Your task to perform on an android device: Go to Google Image 0: 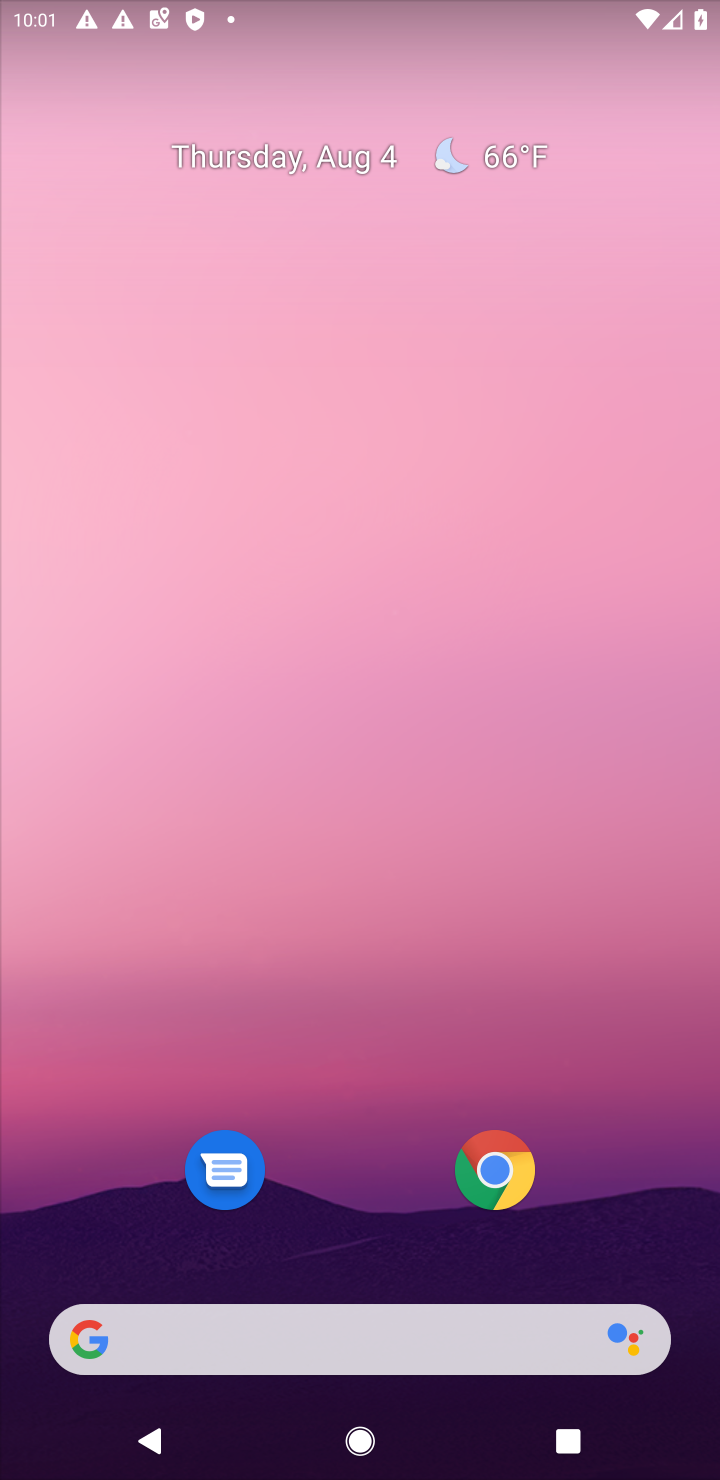
Step 0: drag from (350, 994) to (258, 10)
Your task to perform on an android device: Go to Google Image 1: 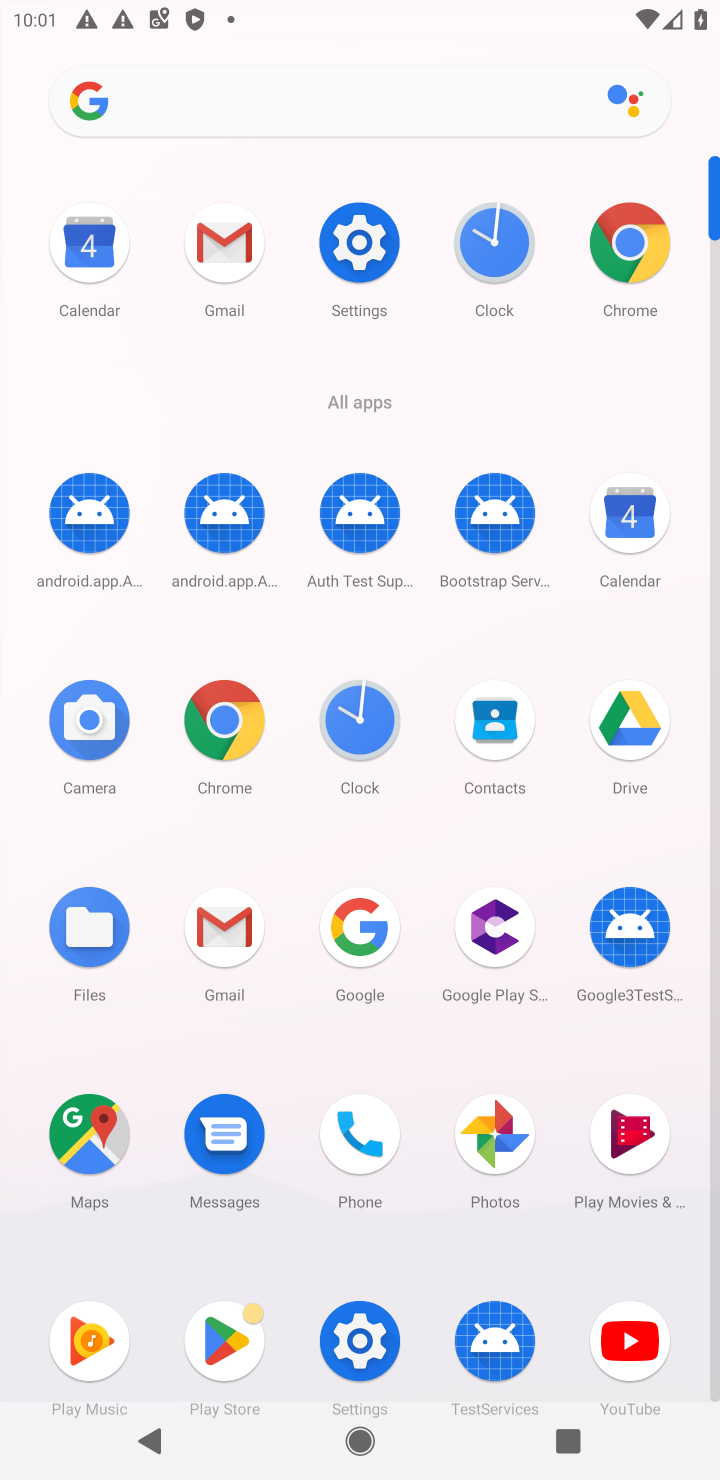
Step 1: click (345, 945)
Your task to perform on an android device: Go to Google Image 2: 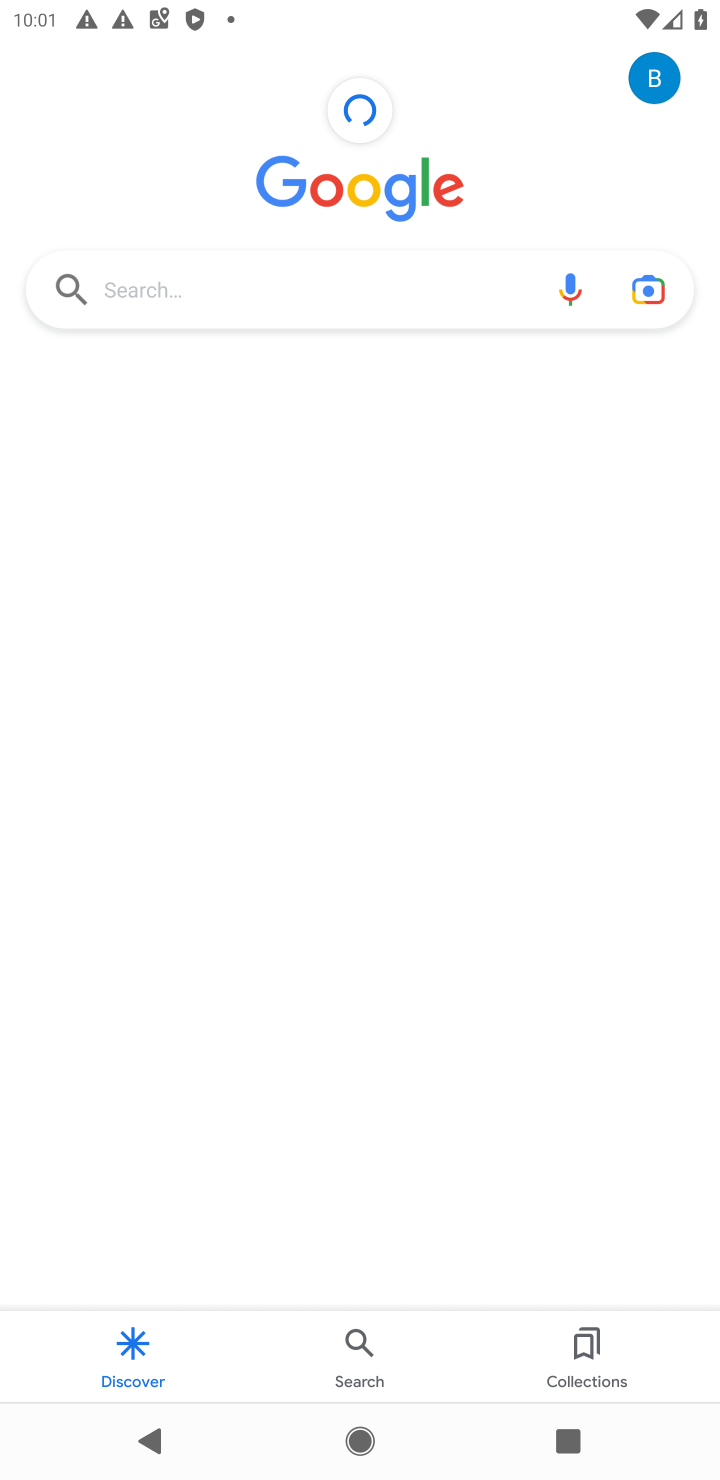
Step 2: task complete